Your task to perform on an android device: Search for sushi restaurants on Maps Image 0: 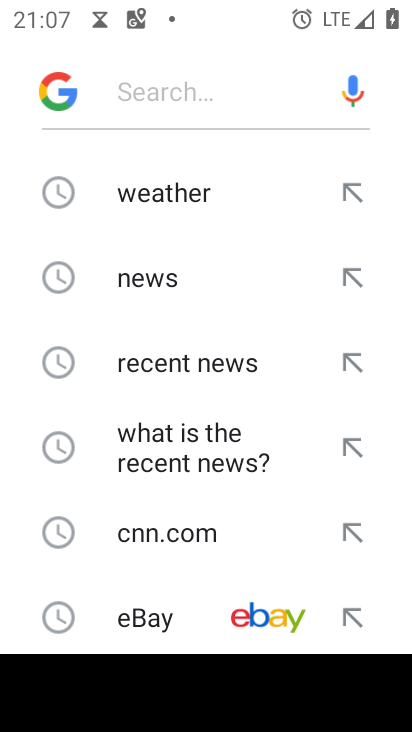
Step 0: press home button
Your task to perform on an android device: Search for sushi restaurants on Maps Image 1: 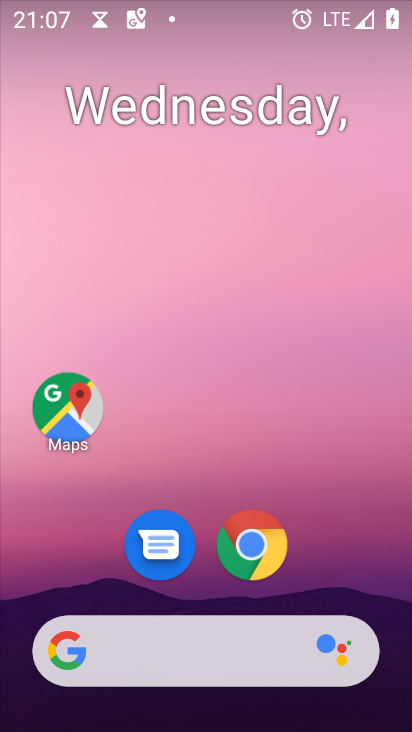
Step 1: click (79, 424)
Your task to perform on an android device: Search for sushi restaurants on Maps Image 2: 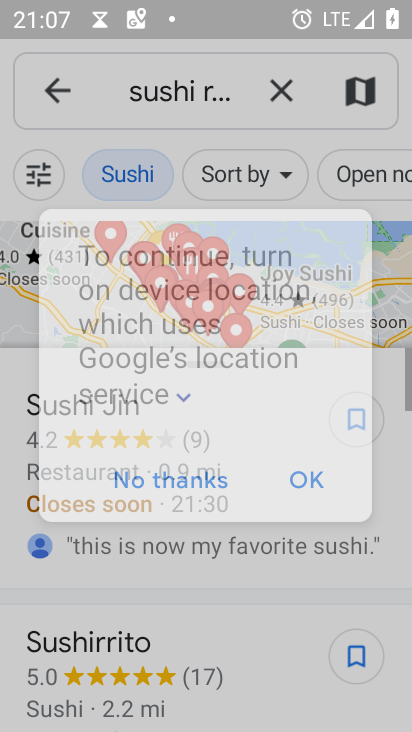
Step 2: drag from (228, 605) to (389, 308)
Your task to perform on an android device: Search for sushi restaurants on Maps Image 3: 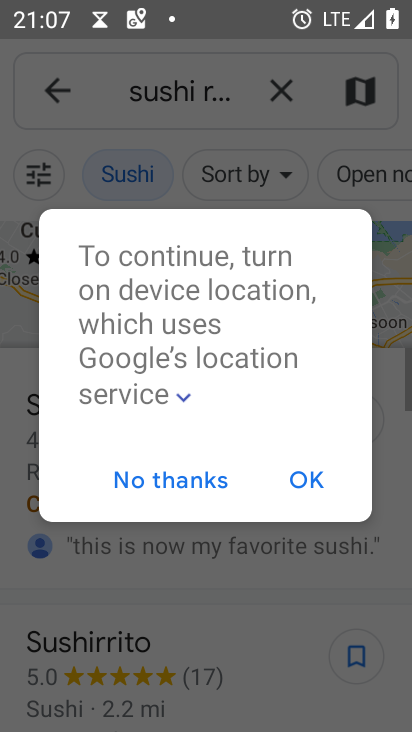
Step 3: click (312, 487)
Your task to perform on an android device: Search for sushi restaurants on Maps Image 4: 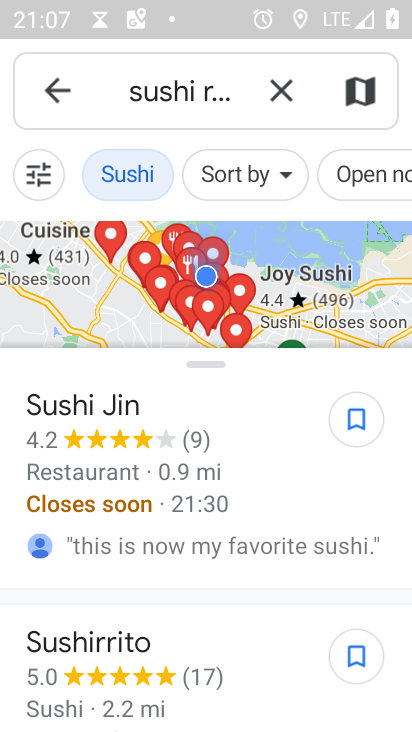
Step 4: task complete